Your task to perform on an android device: Open the map Image 0: 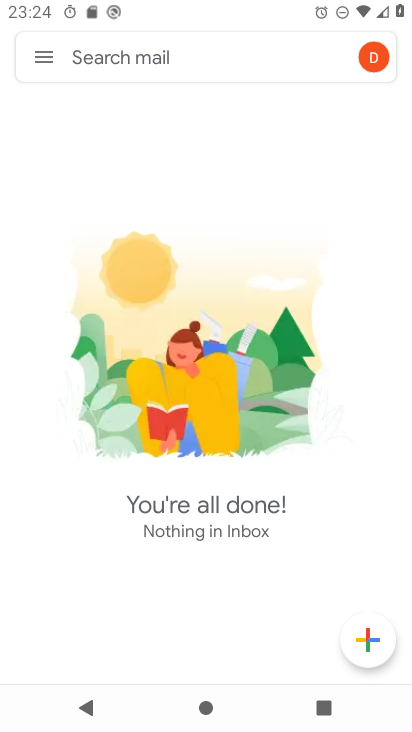
Step 0: press home button
Your task to perform on an android device: Open the map Image 1: 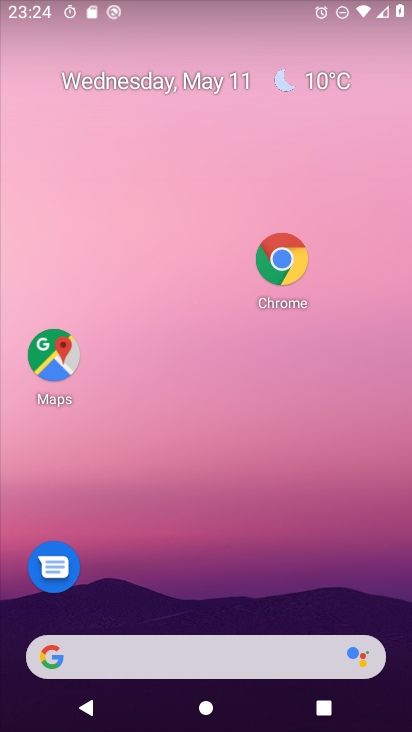
Step 1: click (57, 359)
Your task to perform on an android device: Open the map Image 2: 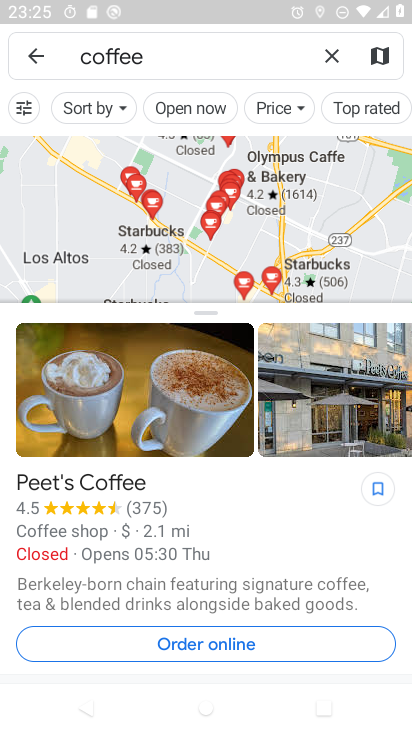
Step 2: task complete